Your task to perform on an android device: see tabs open on other devices in the chrome app Image 0: 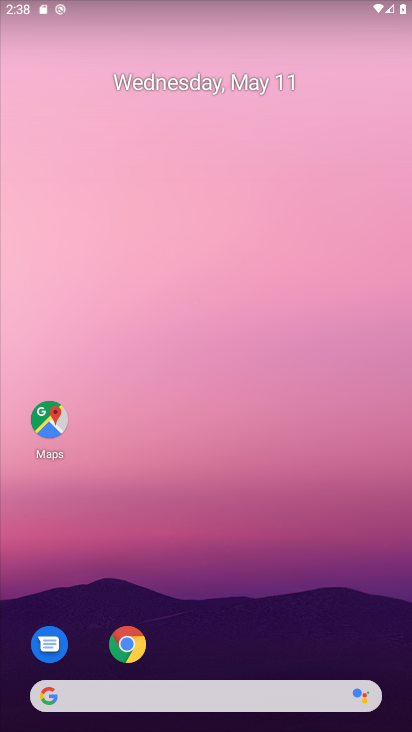
Step 0: drag from (208, 673) to (30, 2)
Your task to perform on an android device: see tabs open on other devices in the chrome app Image 1: 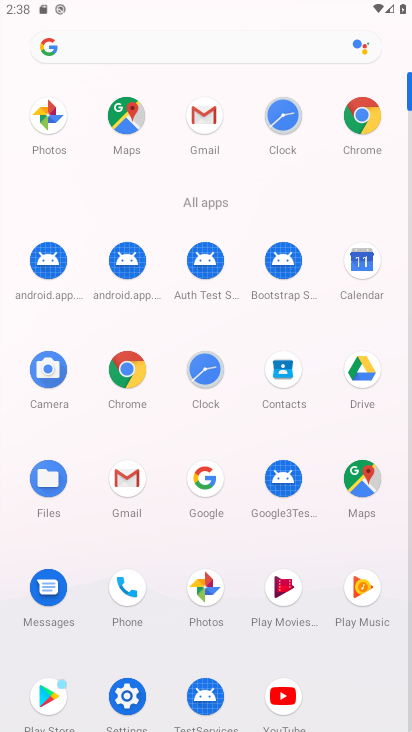
Step 1: click (120, 384)
Your task to perform on an android device: see tabs open on other devices in the chrome app Image 2: 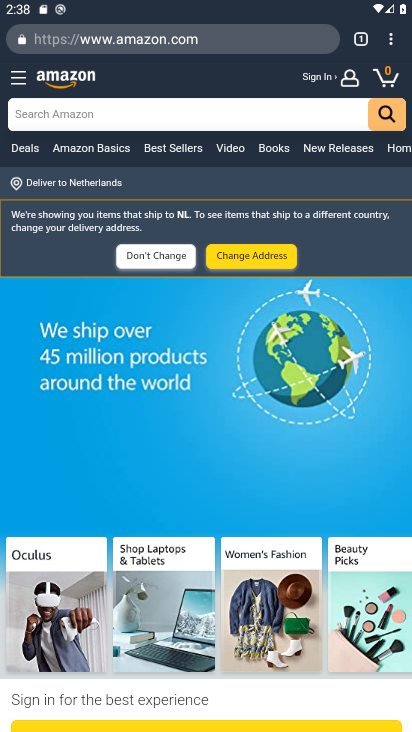
Step 2: click (362, 27)
Your task to perform on an android device: see tabs open on other devices in the chrome app Image 3: 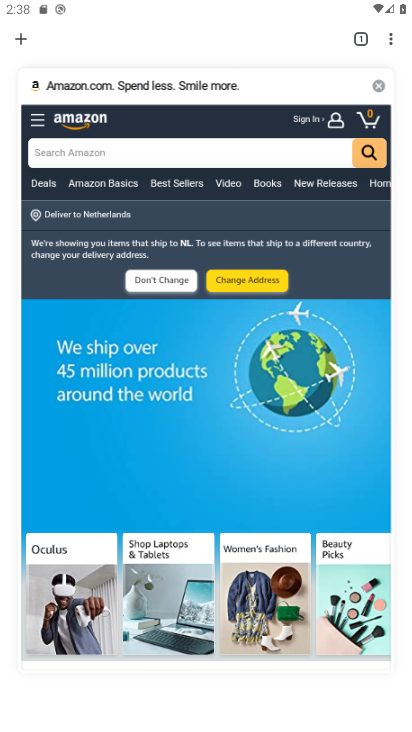
Step 3: task complete